Your task to perform on an android device: toggle translation in the chrome app Image 0: 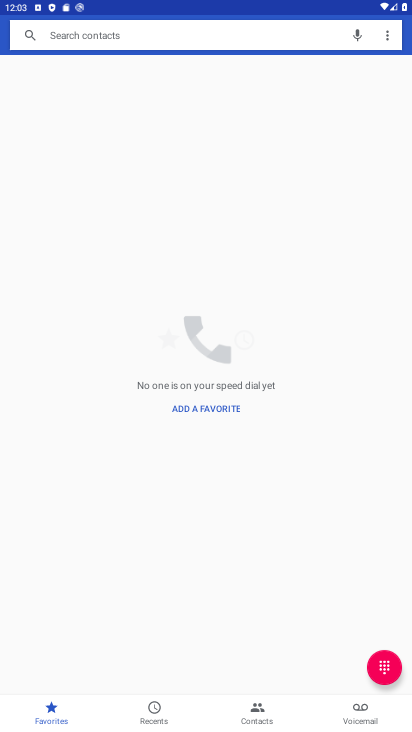
Step 0: press home button
Your task to perform on an android device: toggle translation in the chrome app Image 1: 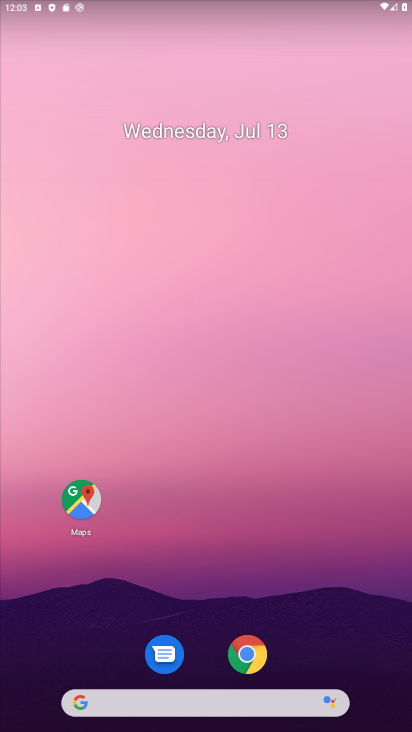
Step 1: drag from (299, 669) to (269, 262)
Your task to perform on an android device: toggle translation in the chrome app Image 2: 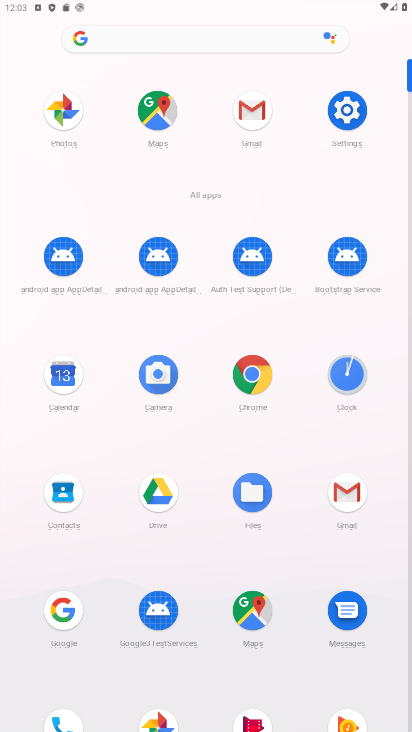
Step 2: click (265, 374)
Your task to perform on an android device: toggle translation in the chrome app Image 3: 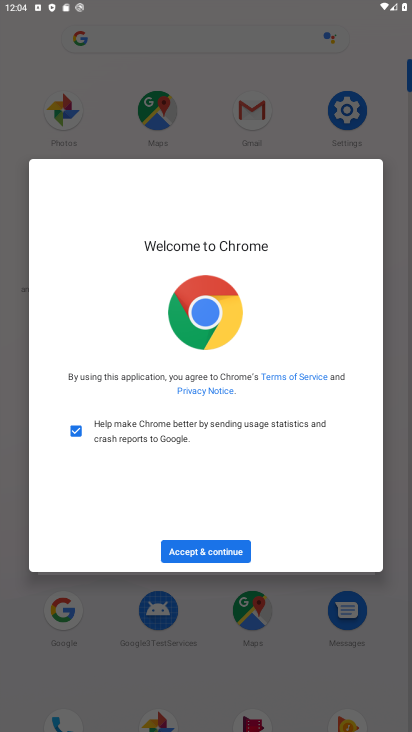
Step 3: click (228, 554)
Your task to perform on an android device: toggle translation in the chrome app Image 4: 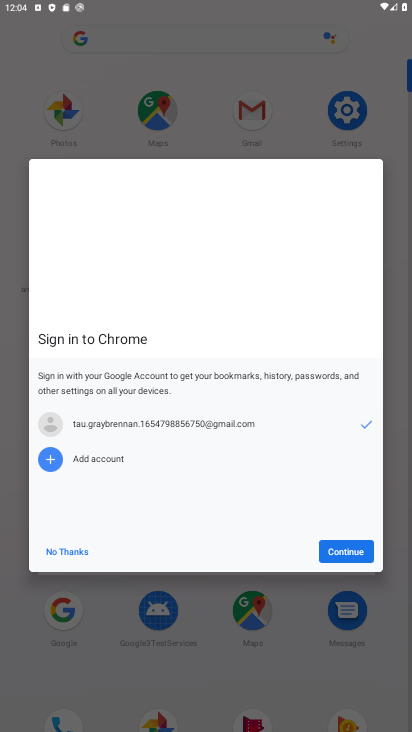
Step 4: click (61, 549)
Your task to perform on an android device: toggle translation in the chrome app Image 5: 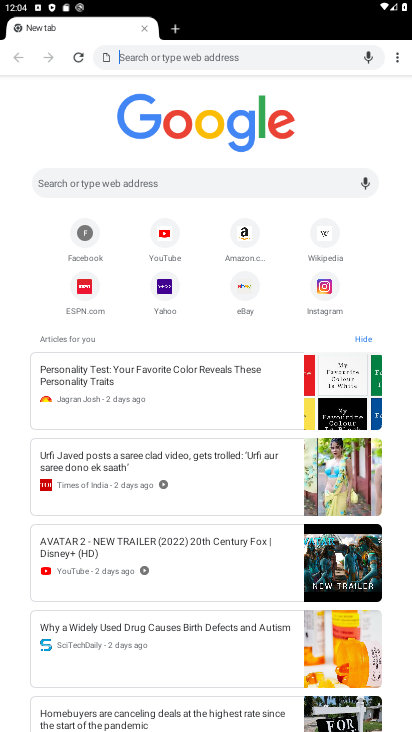
Step 5: drag from (392, 55) to (331, 269)
Your task to perform on an android device: toggle translation in the chrome app Image 6: 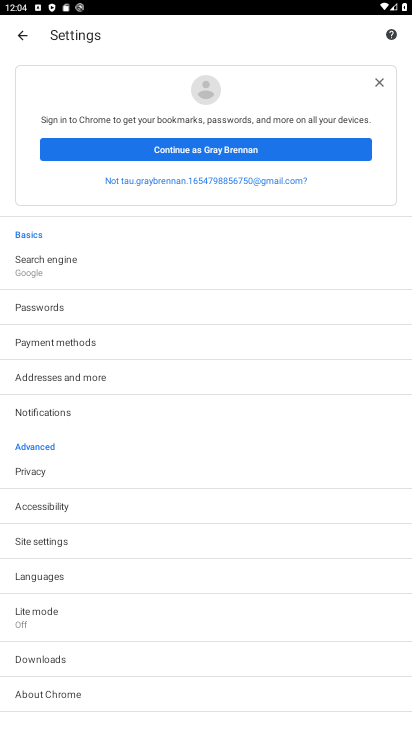
Step 6: click (73, 574)
Your task to perform on an android device: toggle translation in the chrome app Image 7: 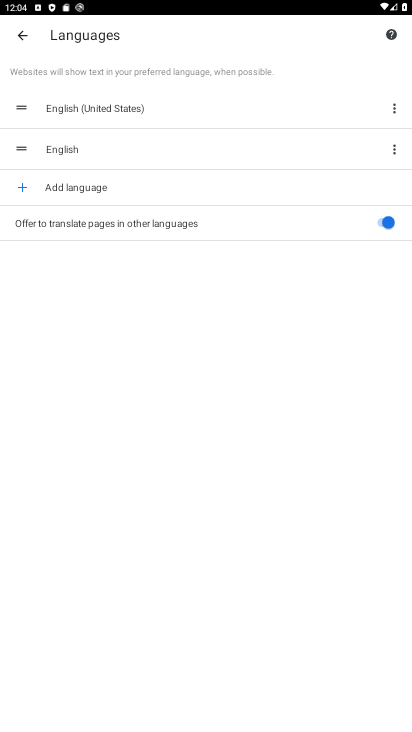
Step 7: click (386, 215)
Your task to perform on an android device: toggle translation in the chrome app Image 8: 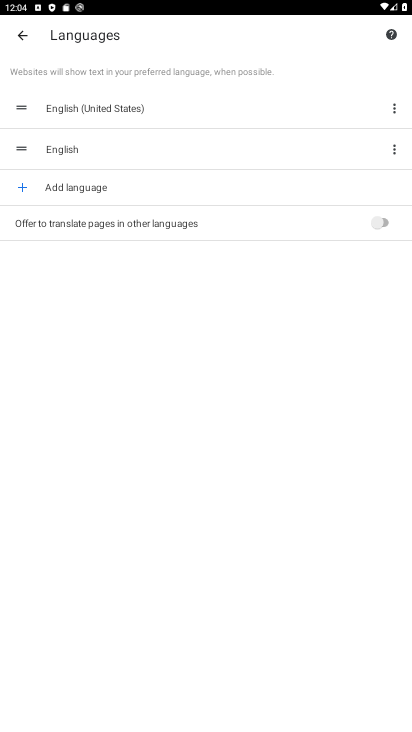
Step 8: task complete